Your task to perform on an android device: Go to eBay Image 0: 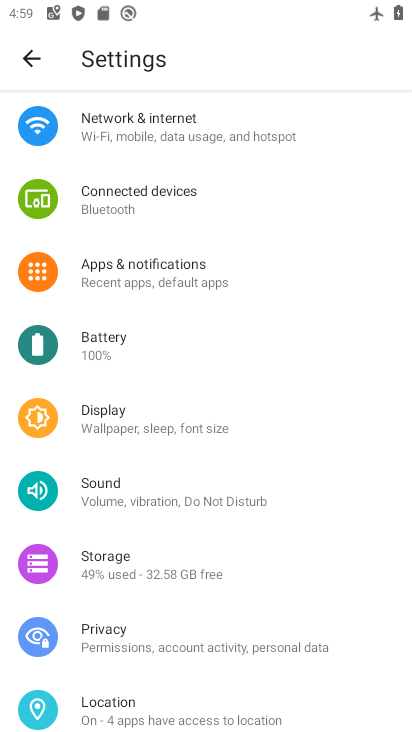
Step 0: press home button
Your task to perform on an android device: Go to eBay Image 1: 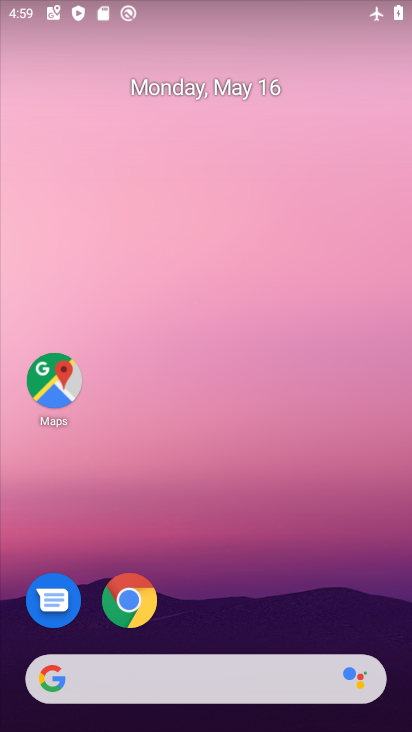
Step 1: click (114, 599)
Your task to perform on an android device: Go to eBay Image 2: 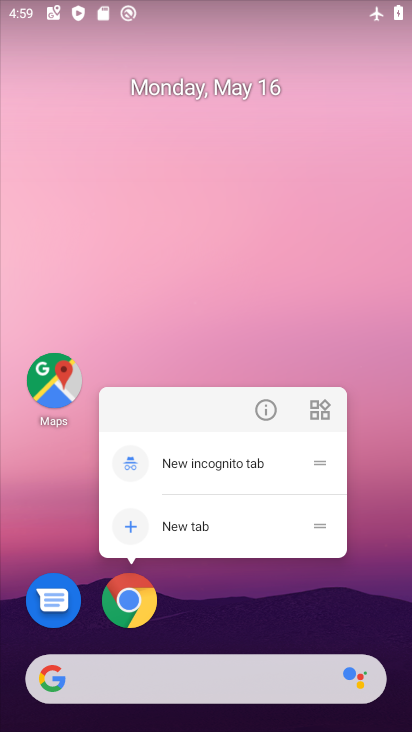
Step 2: click (122, 598)
Your task to perform on an android device: Go to eBay Image 3: 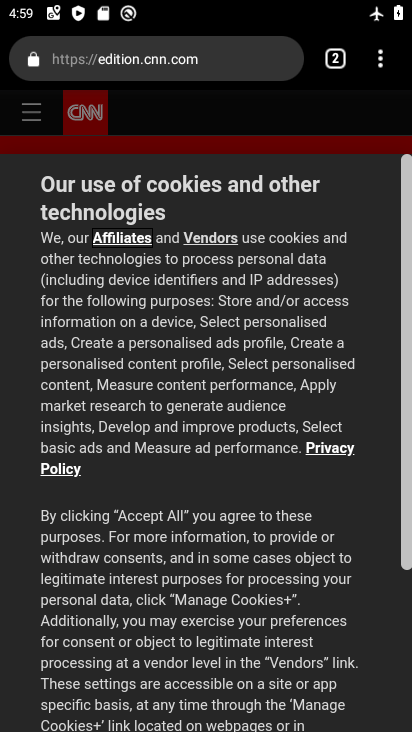
Step 3: click (332, 55)
Your task to perform on an android device: Go to eBay Image 4: 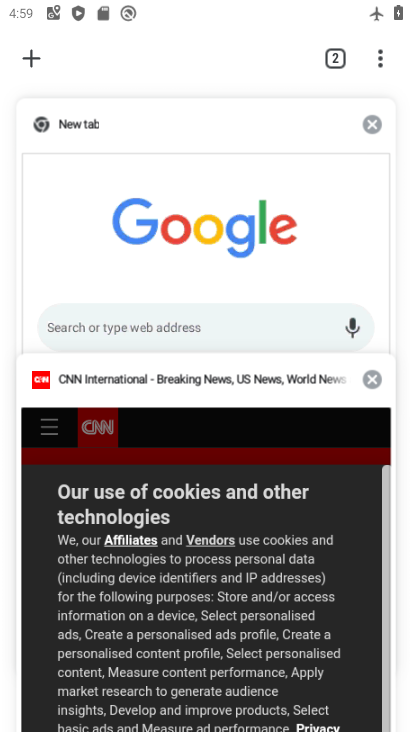
Step 4: click (42, 58)
Your task to perform on an android device: Go to eBay Image 5: 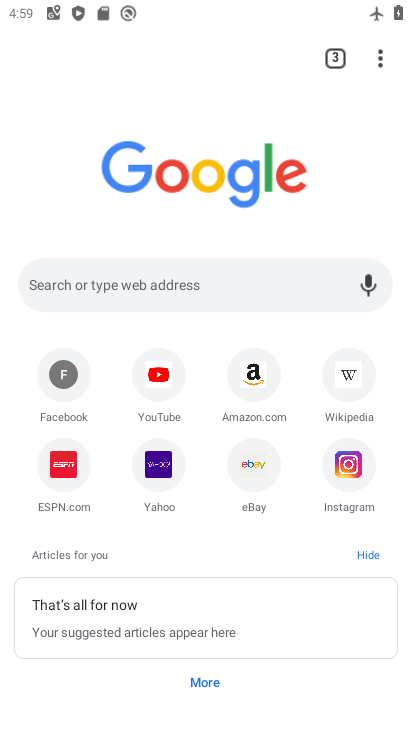
Step 5: click (249, 468)
Your task to perform on an android device: Go to eBay Image 6: 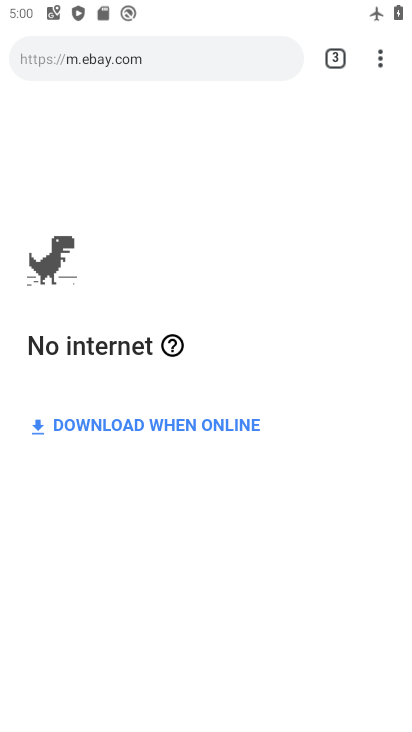
Step 6: task complete